Your task to perform on an android device: Go to Amazon Image 0: 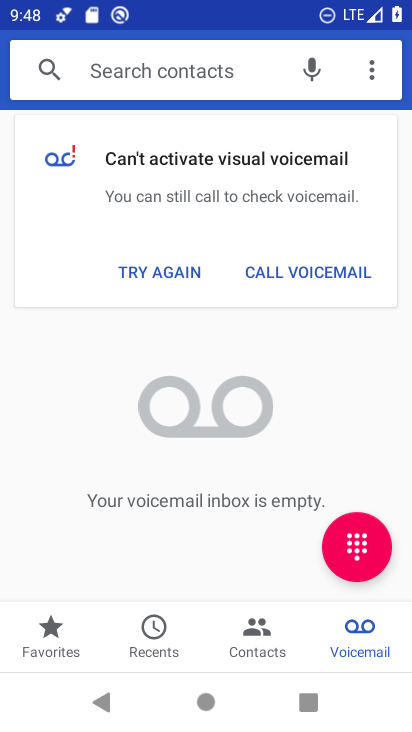
Step 0: press home button
Your task to perform on an android device: Go to Amazon Image 1: 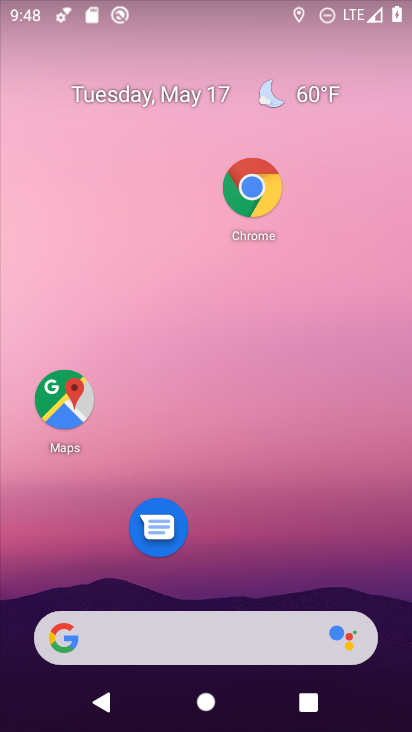
Step 1: drag from (281, 540) to (295, 167)
Your task to perform on an android device: Go to Amazon Image 2: 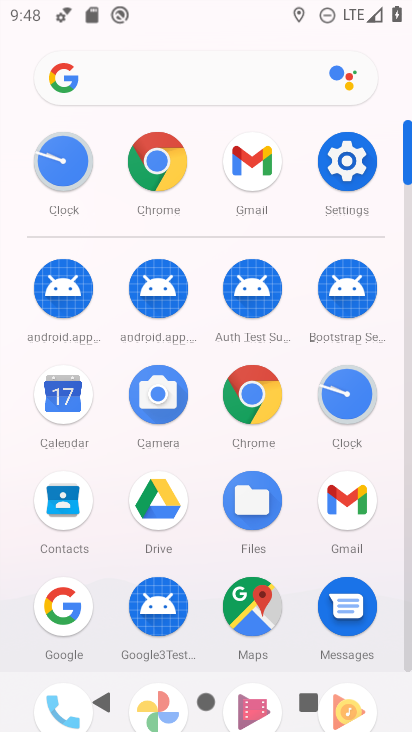
Step 2: click (141, 187)
Your task to perform on an android device: Go to Amazon Image 3: 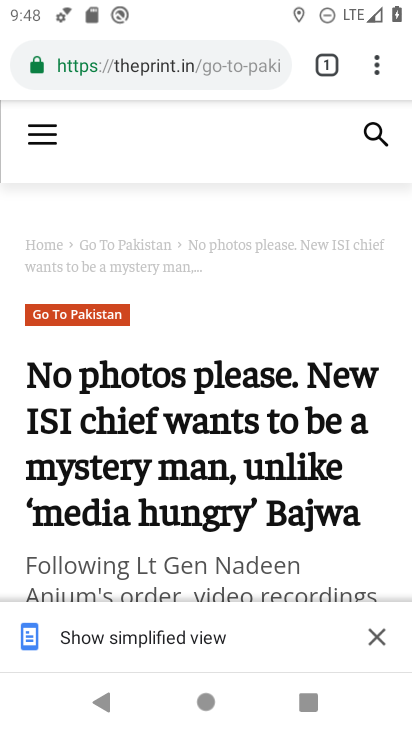
Step 3: click (223, 61)
Your task to perform on an android device: Go to Amazon Image 4: 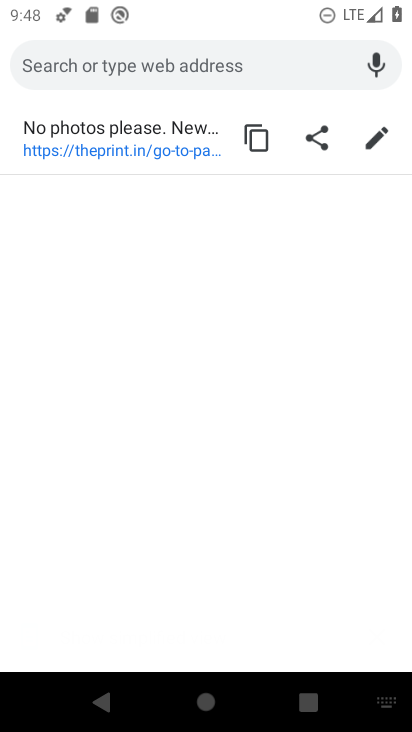
Step 4: type "amazon"
Your task to perform on an android device: Go to Amazon Image 5: 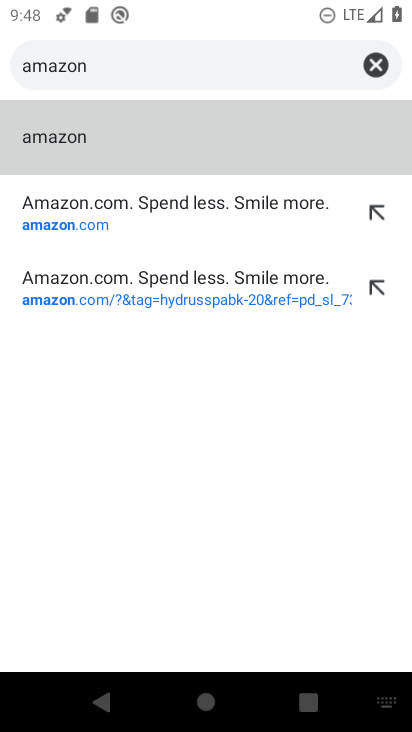
Step 5: click (135, 220)
Your task to perform on an android device: Go to Amazon Image 6: 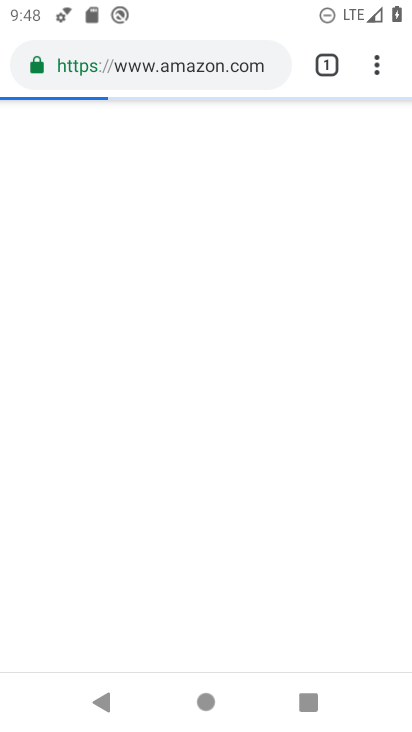
Step 6: task complete